Your task to perform on an android device: Go to Maps Image 0: 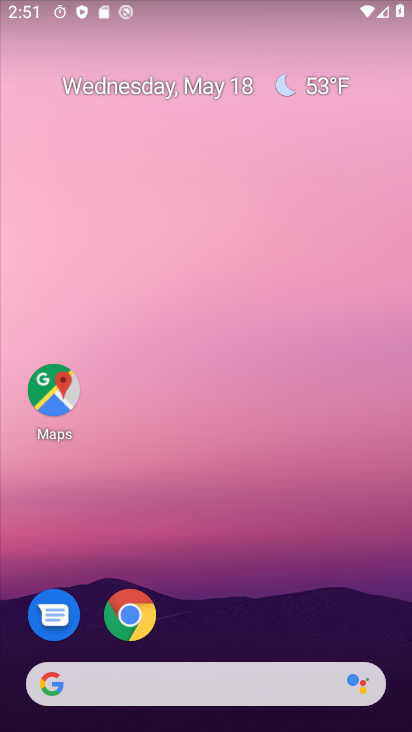
Step 0: click (61, 390)
Your task to perform on an android device: Go to Maps Image 1: 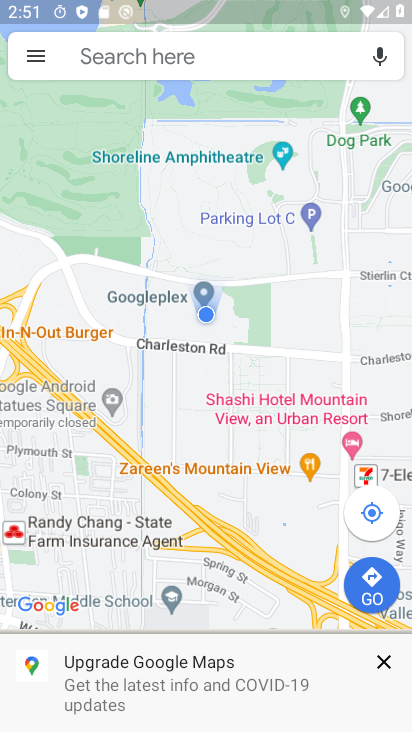
Step 1: task complete